Your task to perform on an android device: check data usage Image 0: 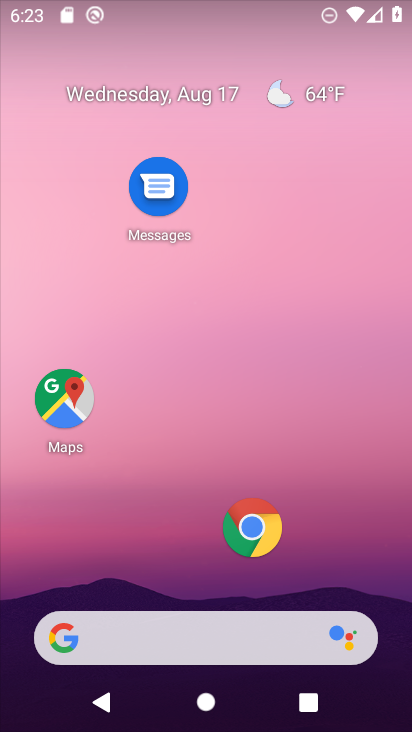
Step 0: drag from (161, 637) to (180, 212)
Your task to perform on an android device: check data usage Image 1: 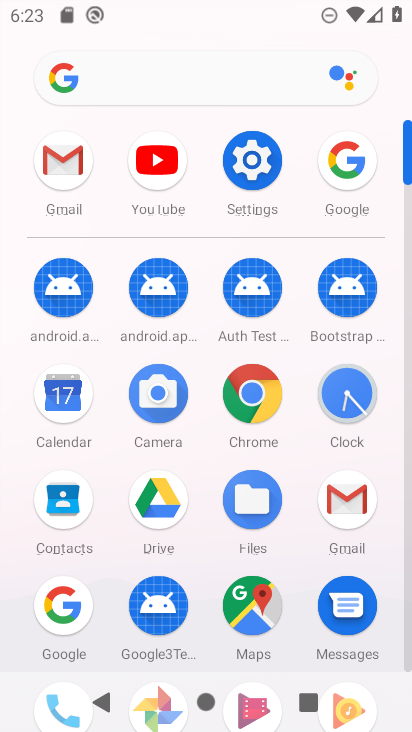
Step 1: click (247, 162)
Your task to perform on an android device: check data usage Image 2: 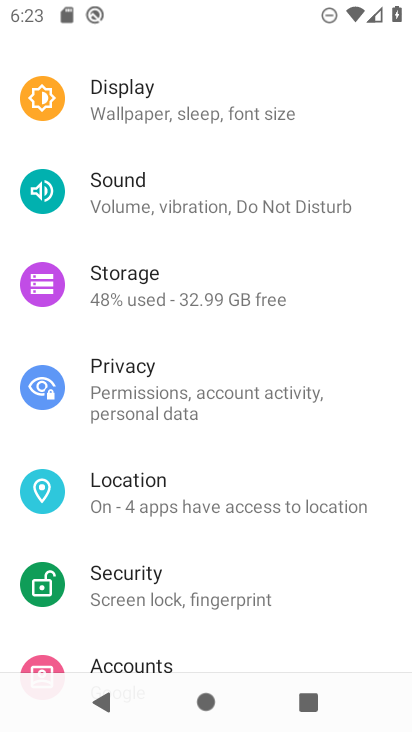
Step 2: drag from (143, 66) to (131, 466)
Your task to perform on an android device: check data usage Image 3: 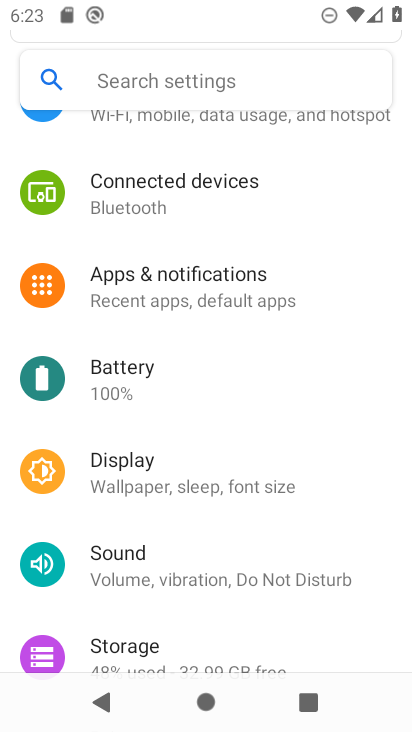
Step 3: drag from (160, 147) to (160, 538)
Your task to perform on an android device: check data usage Image 4: 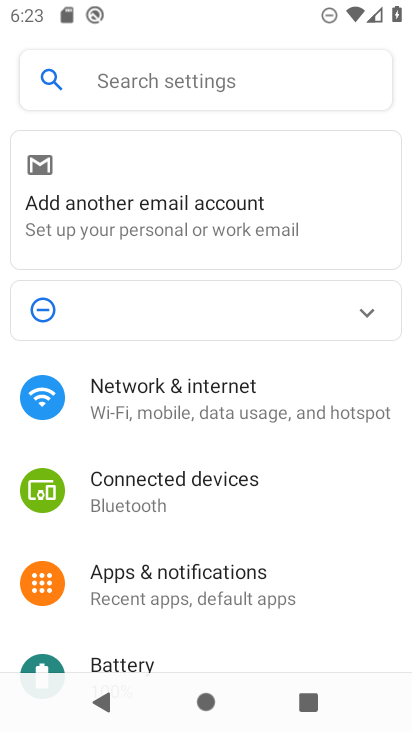
Step 4: click (145, 397)
Your task to perform on an android device: check data usage Image 5: 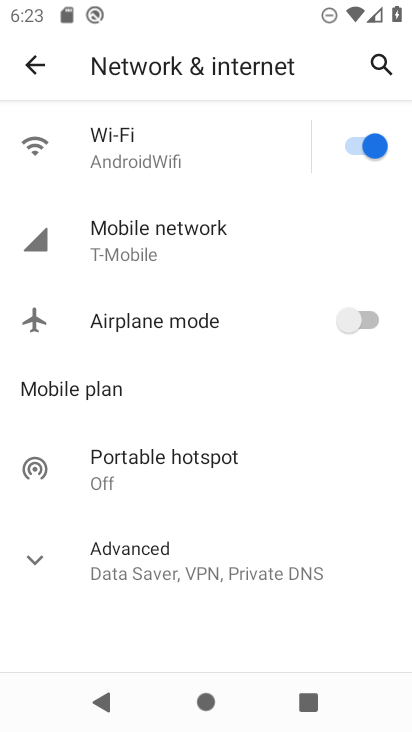
Step 5: click (126, 557)
Your task to perform on an android device: check data usage Image 6: 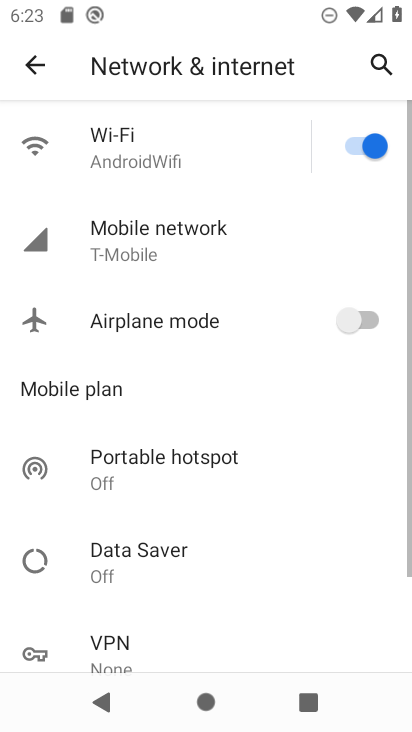
Step 6: click (126, 241)
Your task to perform on an android device: check data usage Image 7: 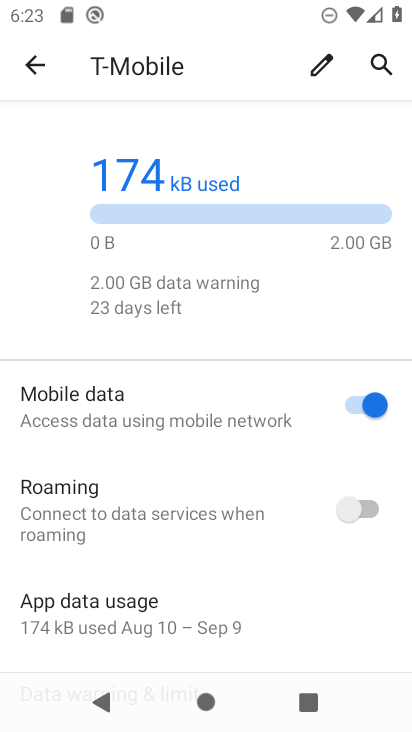
Step 7: task complete